Your task to perform on an android device: turn on the 12-hour format for clock Image 0: 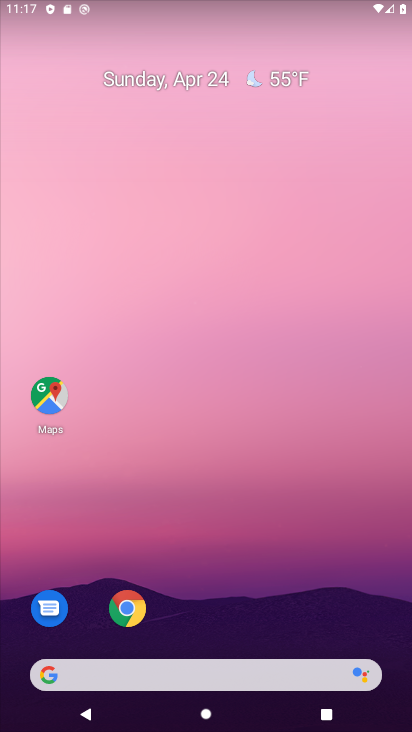
Step 0: drag from (204, 617) to (290, 135)
Your task to perform on an android device: turn on the 12-hour format for clock Image 1: 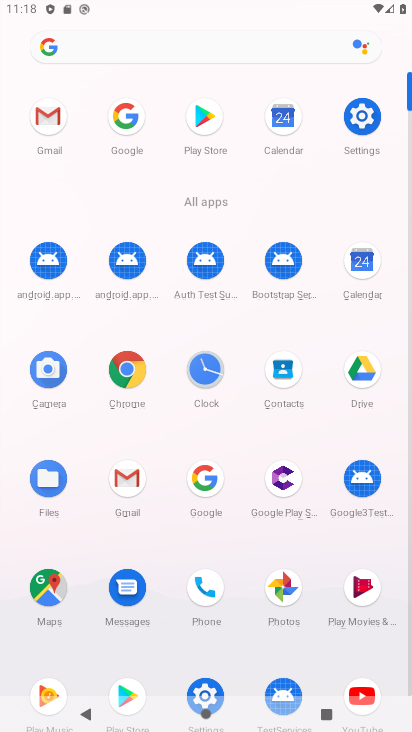
Step 1: click (216, 370)
Your task to perform on an android device: turn on the 12-hour format for clock Image 2: 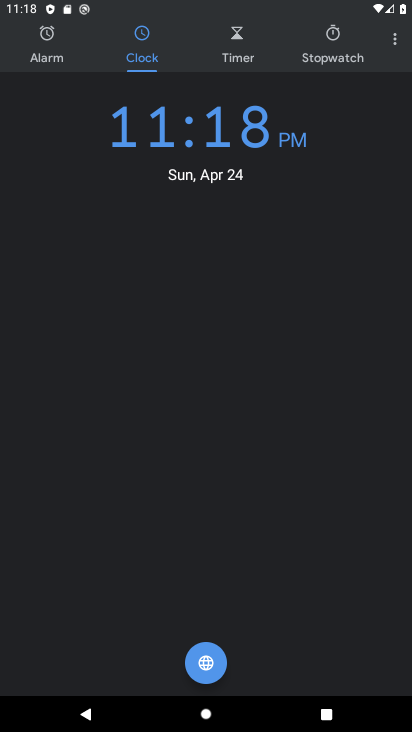
Step 2: click (392, 37)
Your task to perform on an android device: turn on the 12-hour format for clock Image 3: 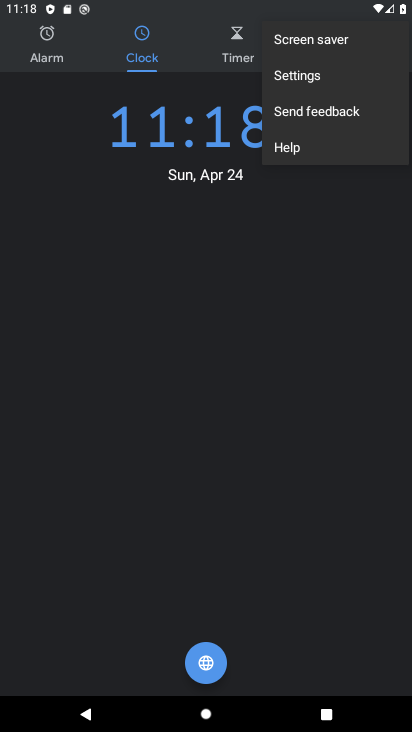
Step 3: click (318, 86)
Your task to perform on an android device: turn on the 12-hour format for clock Image 4: 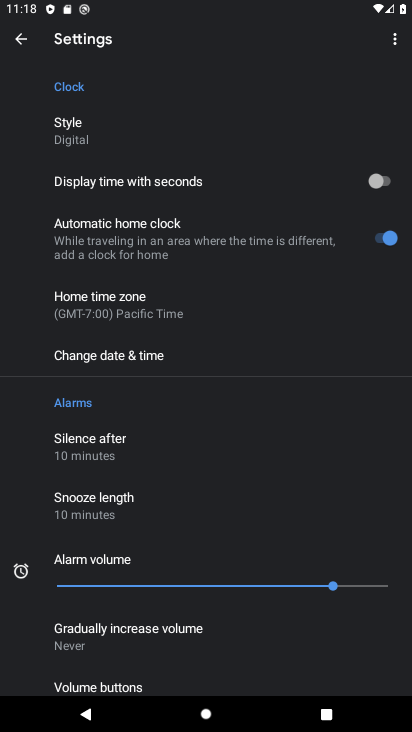
Step 4: drag from (157, 666) to (293, 194)
Your task to perform on an android device: turn on the 12-hour format for clock Image 5: 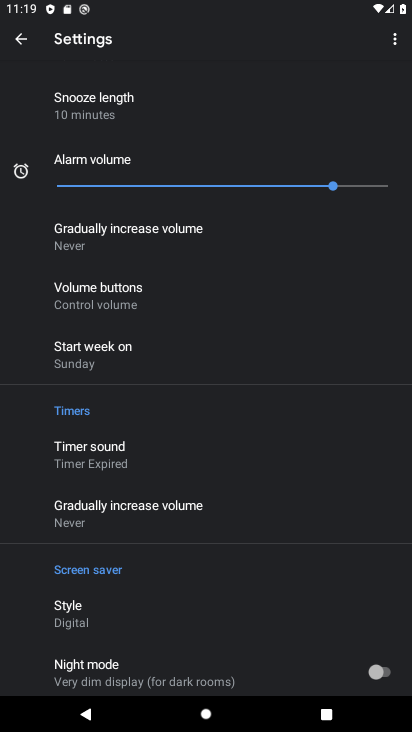
Step 5: drag from (158, 611) to (299, 146)
Your task to perform on an android device: turn on the 12-hour format for clock Image 6: 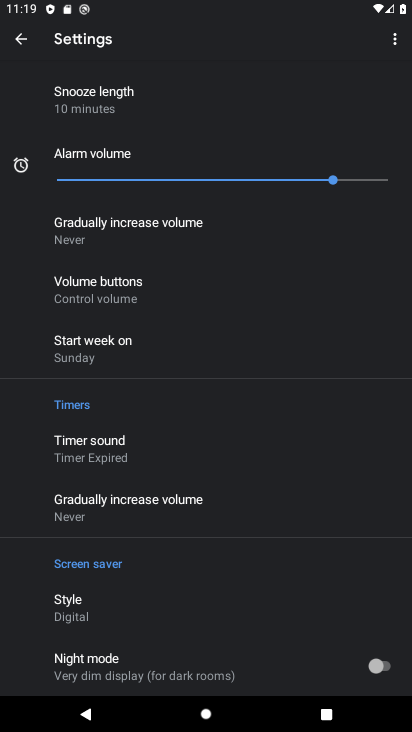
Step 6: drag from (216, 558) to (310, 196)
Your task to perform on an android device: turn on the 12-hour format for clock Image 7: 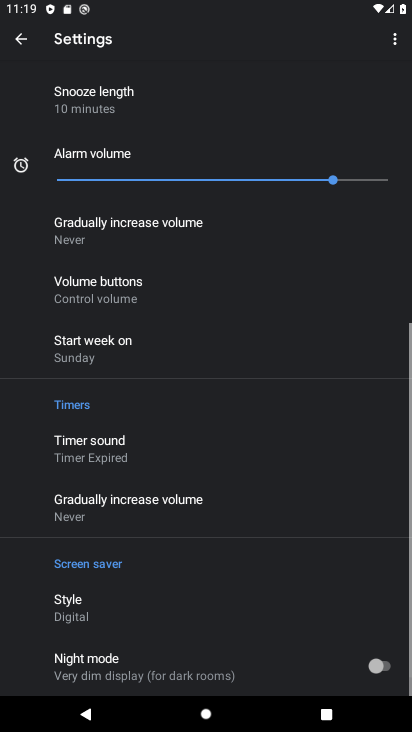
Step 7: drag from (265, 319) to (176, 678)
Your task to perform on an android device: turn on the 12-hour format for clock Image 8: 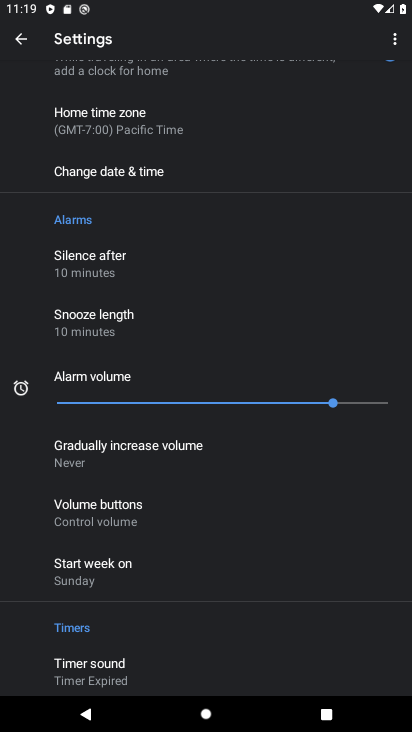
Step 8: click (146, 178)
Your task to perform on an android device: turn on the 12-hour format for clock Image 9: 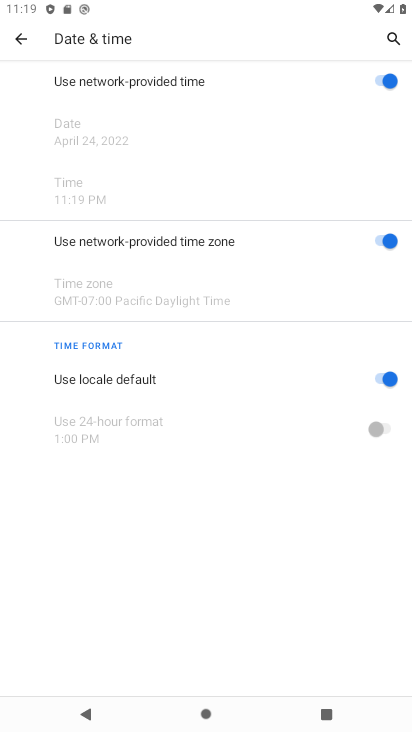
Step 9: task complete